Your task to perform on an android device: turn on notifications settings in the gmail app Image 0: 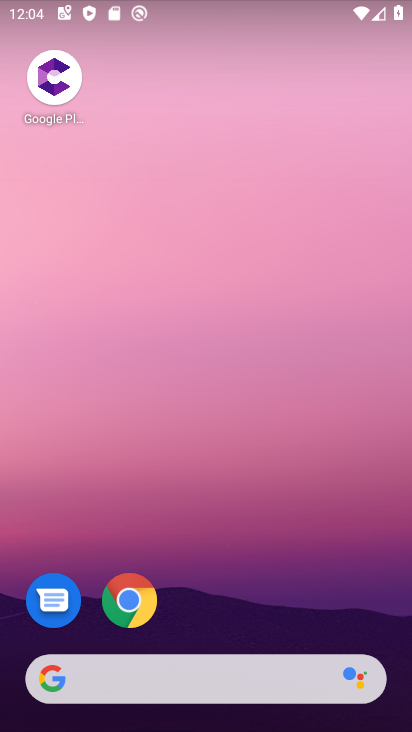
Step 0: drag from (292, 625) to (284, 222)
Your task to perform on an android device: turn on notifications settings in the gmail app Image 1: 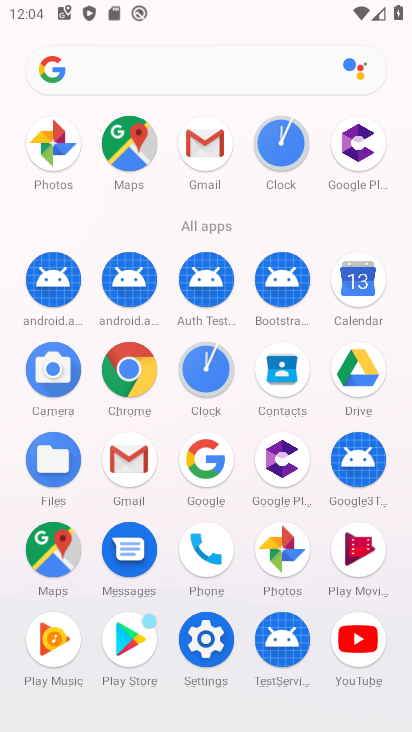
Step 1: click (136, 471)
Your task to perform on an android device: turn on notifications settings in the gmail app Image 2: 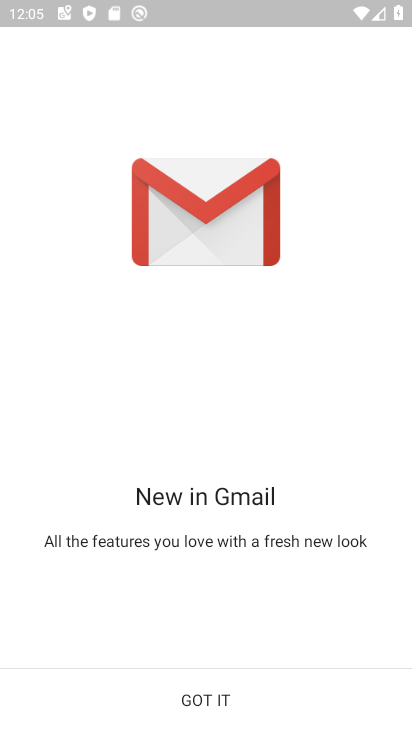
Step 2: click (220, 701)
Your task to perform on an android device: turn on notifications settings in the gmail app Image 3: 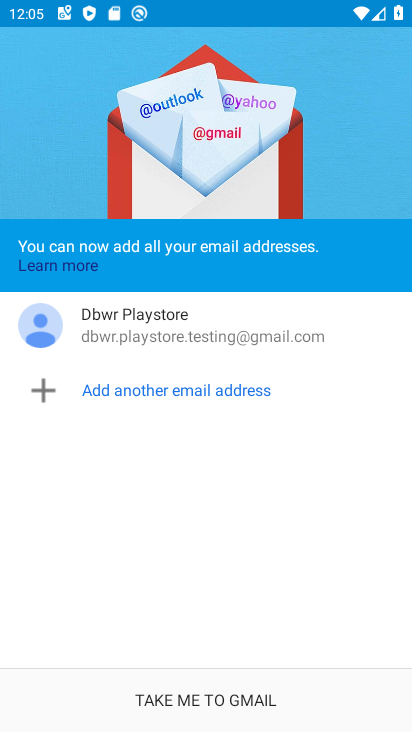
Step 3: click (204, 699)
Your task to perform on an android device: turn on notifications settings in the gmail app Image 4: 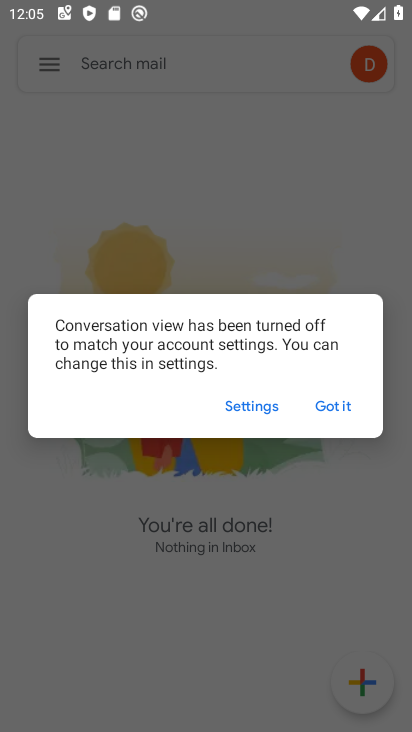
Step 4: click (332, 408)
Your task to perform on an android device: turn on notifications settings in the gmail app Image 5: 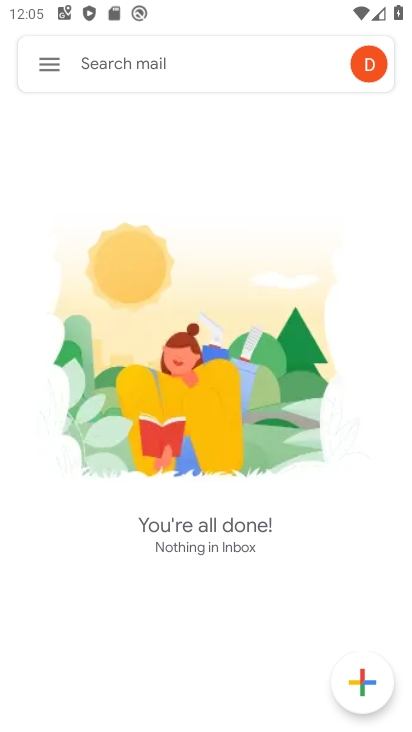
Step 5: click (52, 64)
Your task to perform on an android device: turn on notifications settings in the gmail app Image 6: 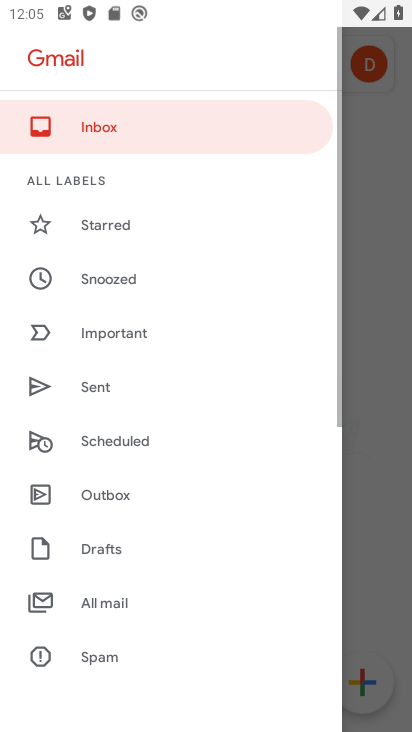
Step 6: drag from (158, 608) to (129, 184)
Your task to perform on an android device: turn on notifications settings in the gmail app Image 7: 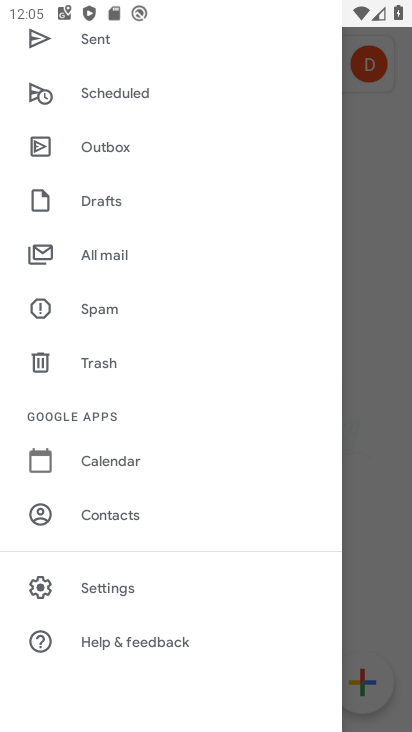
Step 7: click (124, 590)
Your task to perform on an android device: turn on notifications settings in the gmail app Image 8: 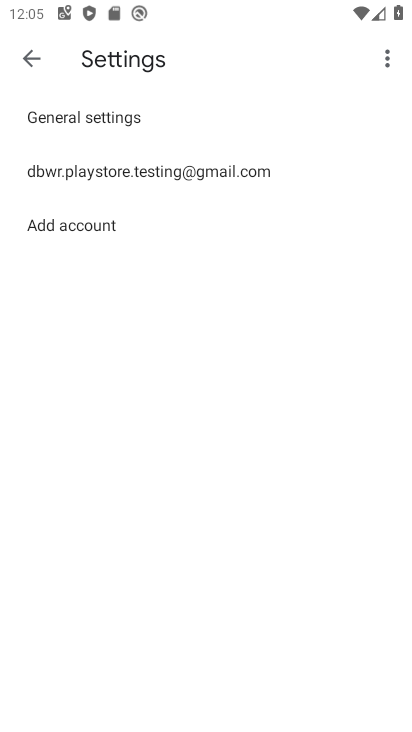
Step 8: click (154, 172)
Your task to perform on an android device: turn on notifications settings in the gmail app Image 9: 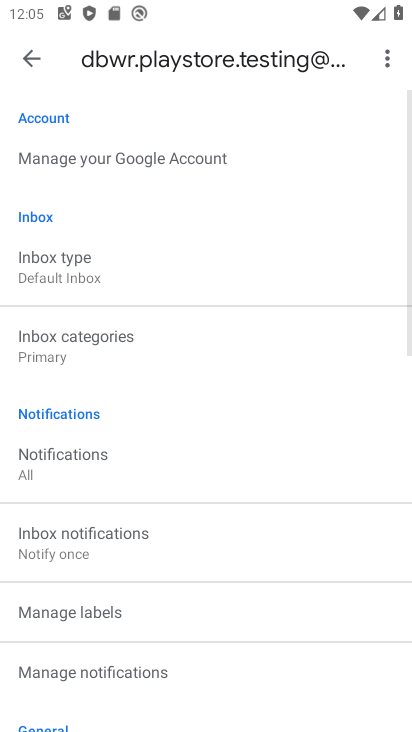
Step 9: click (118, 471)
Your task to perform on an android device: turn on notifications settings in the gmail app Image 10: 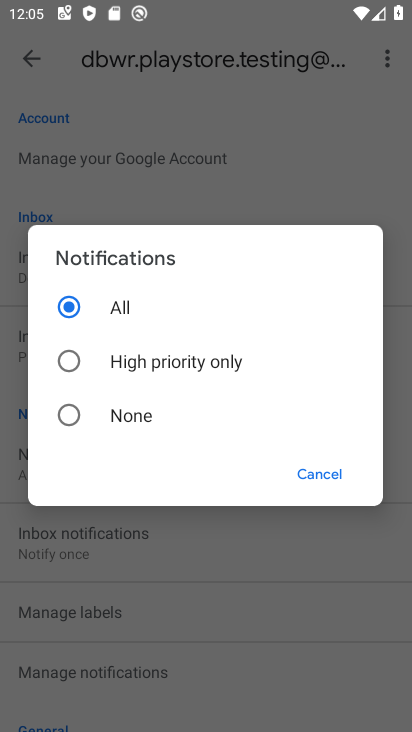
Step 10: task complete